Your task to perform on an android device: check android version Image 0: 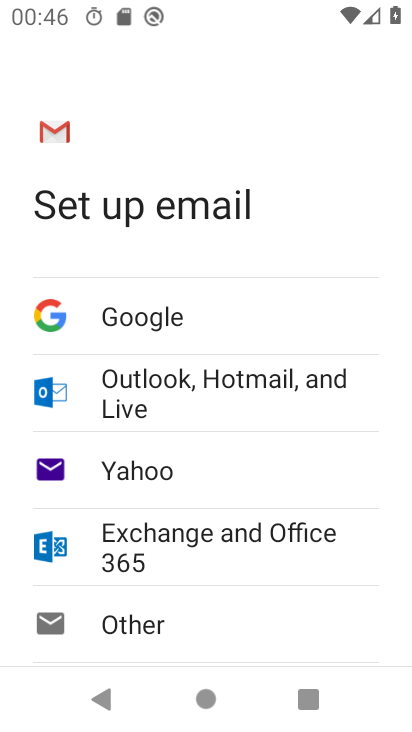
Step 0: press home button
Your task to perform on an android device: check android version Image 1: 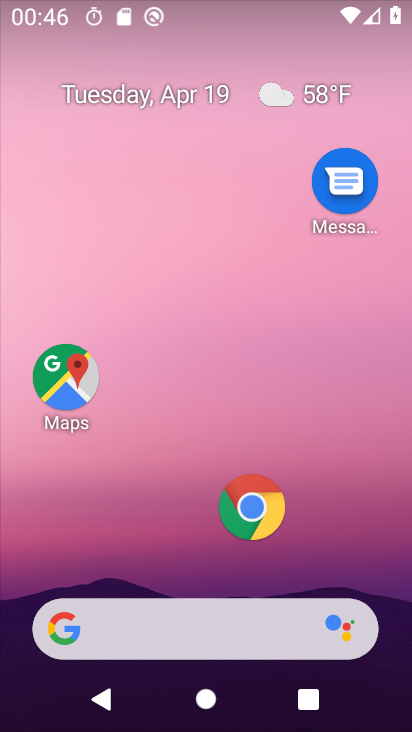
Step 1: drag from (139, 447) to (230, 57)
Your task to perform on an android device: check android version Image 2: 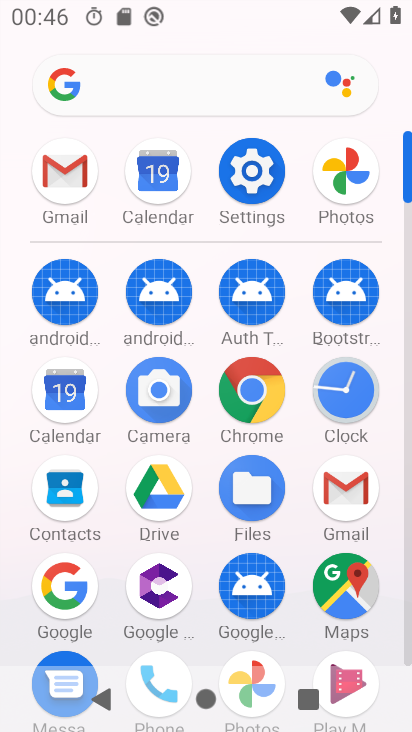
Step 2: click (257, 177)
Your task to perform on an android device: check android version Image 3: 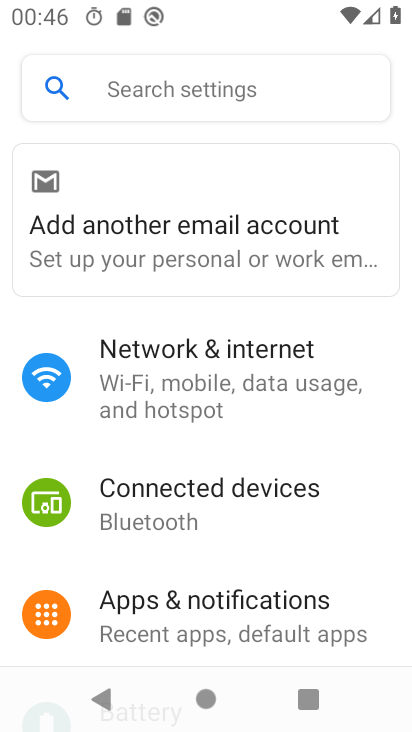
Step 3: drag from (173, 469) to (250, 37)
Your task to perform on an android device: check android version Image 4: 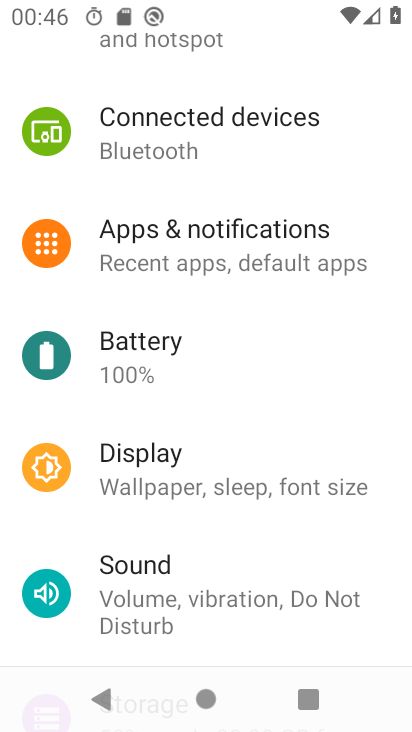
Step 4: drag from (166, 508) to (295, 88)
Your task to perform on an android device: check android version Image 5: 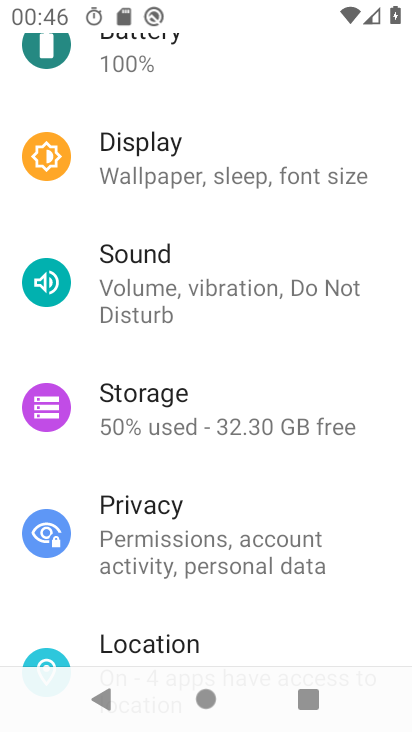
Step 5: drag from (221, 535) to (299, 108)
Your task to perform on an android device: check android version Image 6: 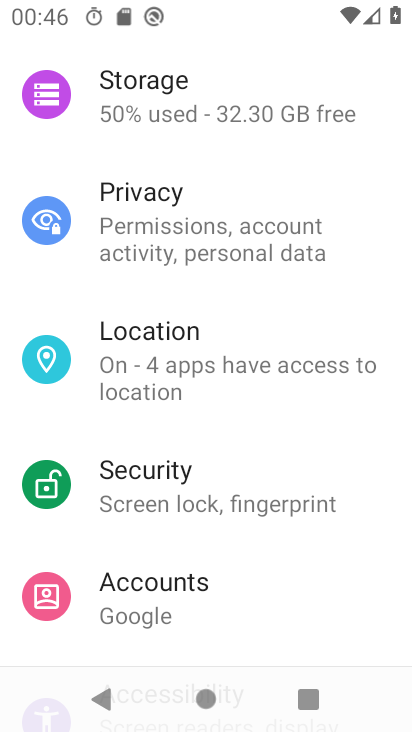
Step 6: drag from (160, 594) to (202, 212)
Your task to perform on an android device: check android version Image 7: 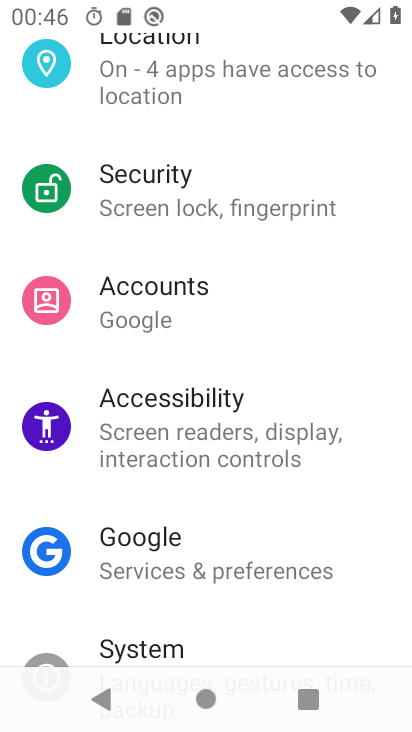
Step 7: drag from (207, 494) to (283, 115)
Your task to perform on an android device: check android version Image 8: 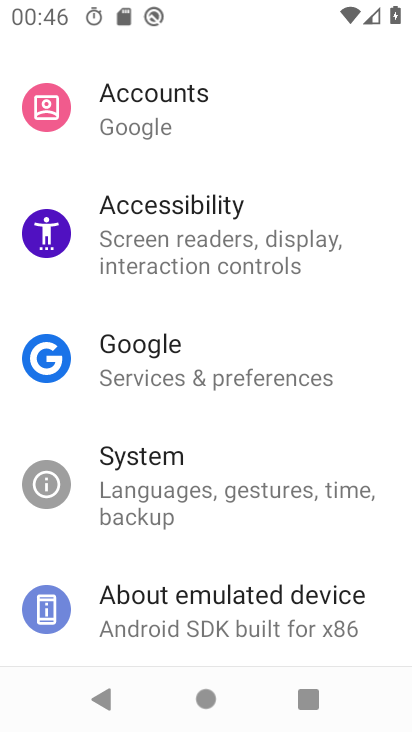
Step 8: click (178, 616)
Your task to perform on an android device: check android version Image 9: 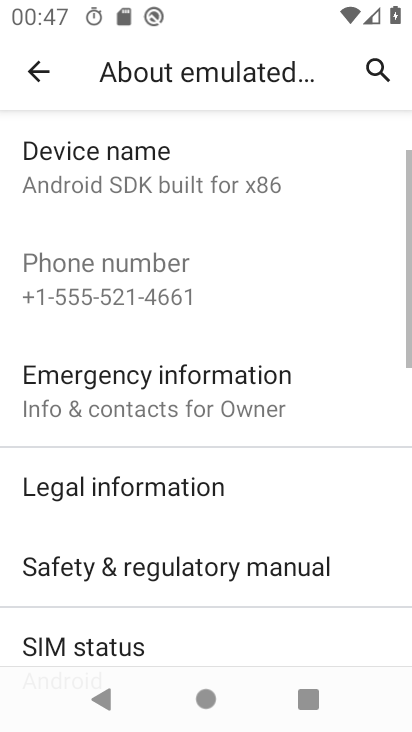
Step 9: drag from (156, 420) to (250, 90)
Your task to perform on an android device: check android version Image 10: 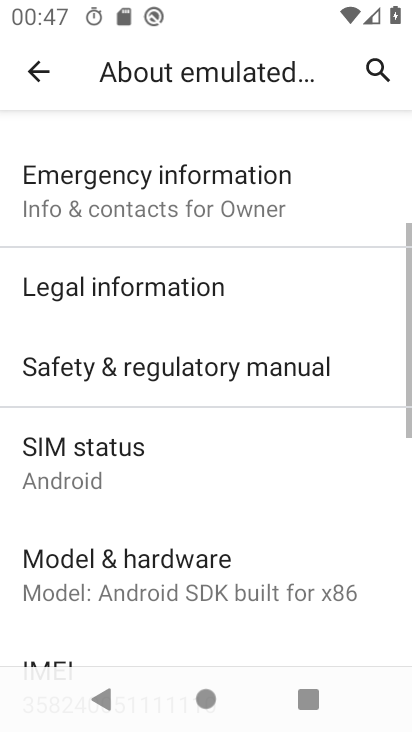
Step 10: drag from (152, 553) to (245, 148)
Your task to perform on an android device: check android version Image 11: 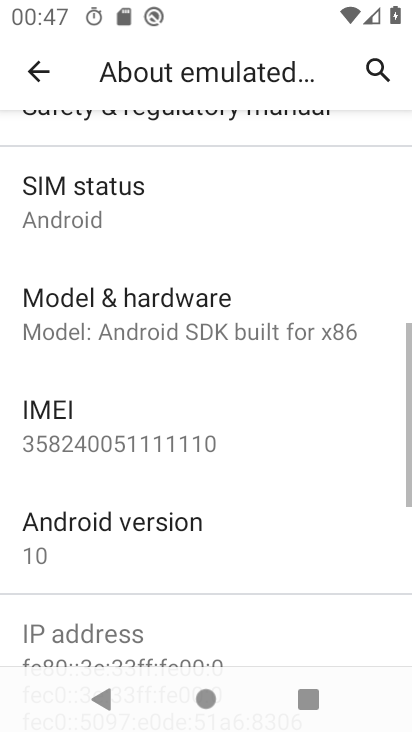
Step 11: click (107, 539)
Your task to perform on an android device: check android version Image 12: 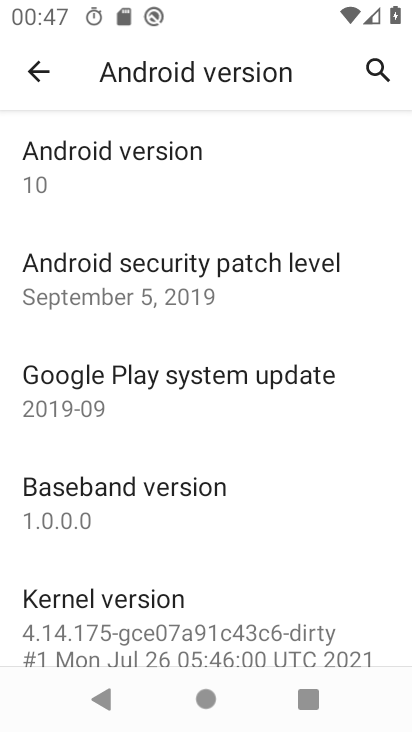
Step 12: task complete